Your task to perform on an android device: Is it going to rain this weekend? Image 0: 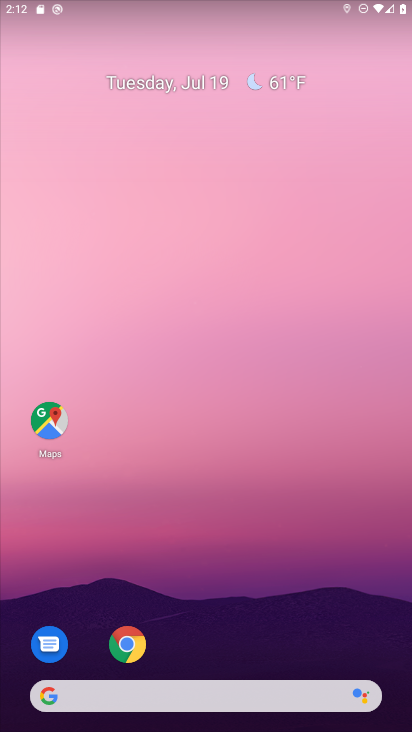
Step 0: drag from (214, 672) to (141, 148)
Your task to perform on an android device: Is it going to rain this weekend? Image 1: 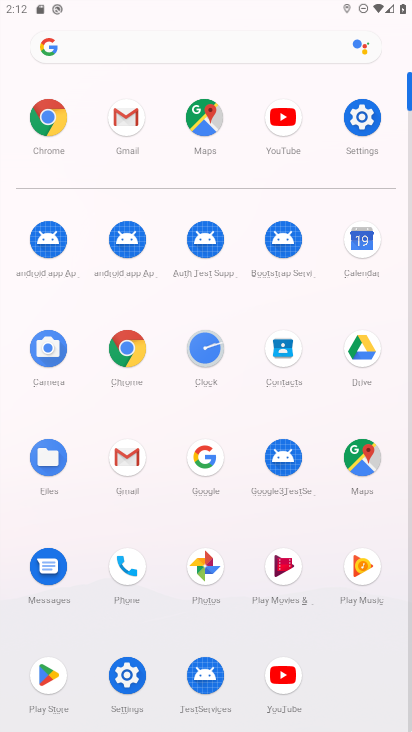
Step 1: click (213, 457)
Your task to perform on an android device: Is it going to rain this weekend? Image 2: 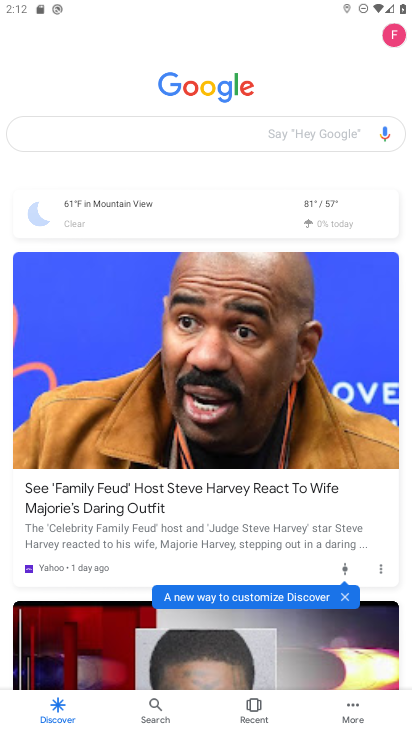
Step 2: click (198, 139)
Your task to perform on an android device: Is it going to rain this weekend? Image 3: 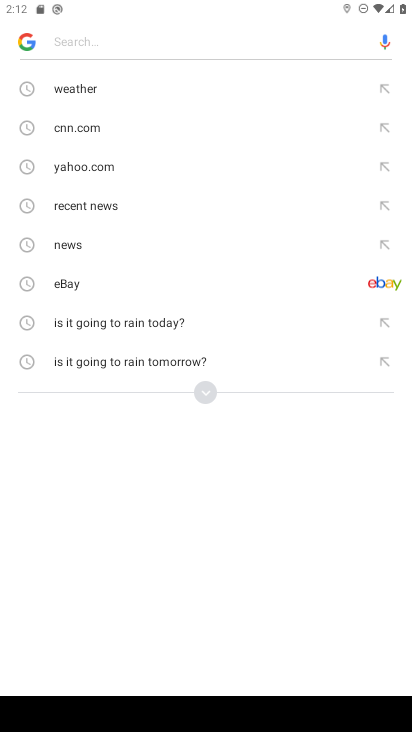
Step 3: click (77, 91)
Your task to perform on an android device: Is it going to rain this weekend? Image 4: 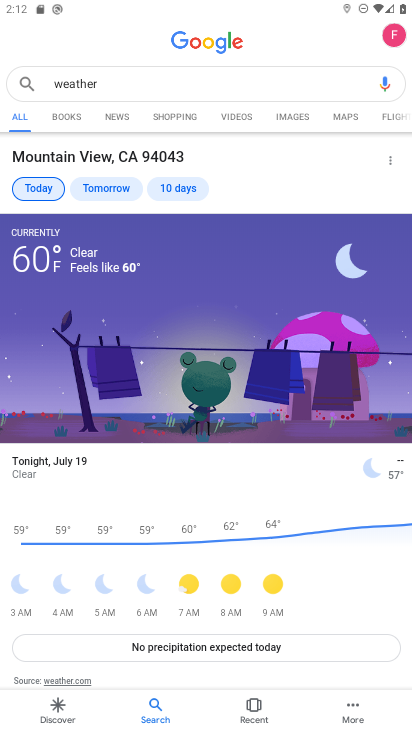
Step 4: click (192, 196)
Your task to perform on an android device: Is it going to rain this weekend? Image 5: 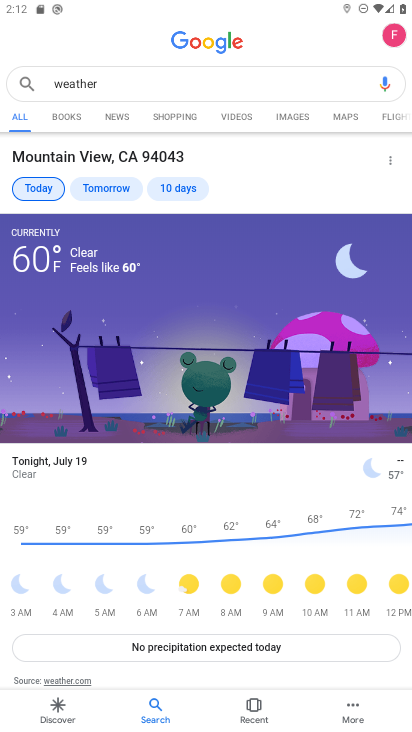
Step 5: click (188, 194)
Your task to perform on an android device: Is it going to rain this weekend? Image 6: 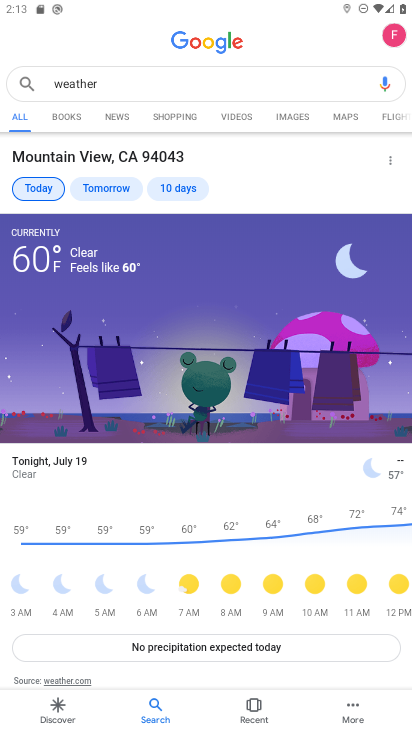
Step 6: click (179, 182)
Your task to perform on an android device: Is it going to rain this weekend? Image 7: 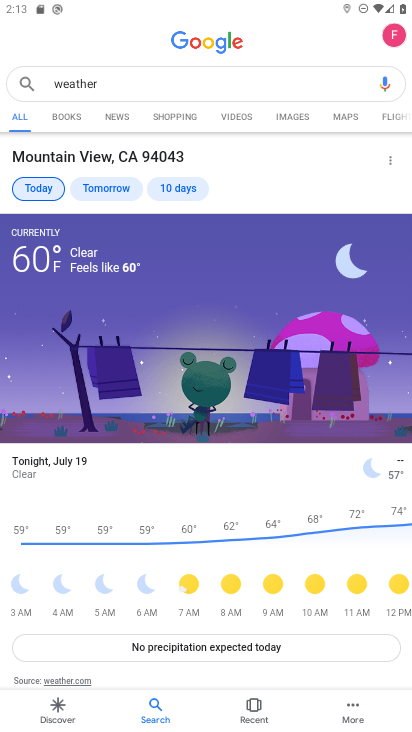
Step 7: click (179, 182)
Your task to perform on an android device: Is it going to rain this weekend? Image 8: 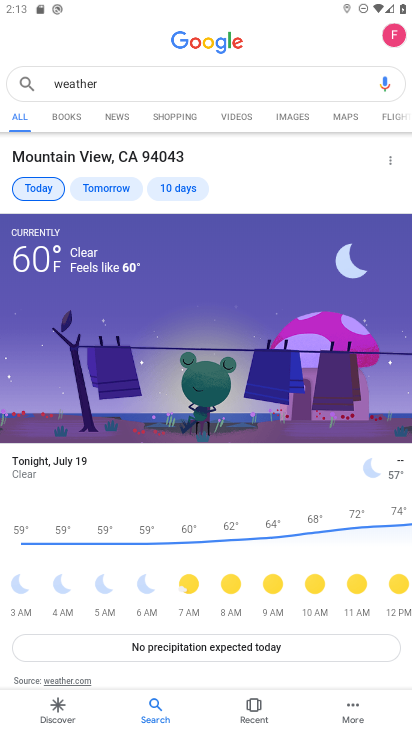
Step 8: click (194, 190)
Your task to perform on an android device: Is it going to rain this weekend? Image 9: 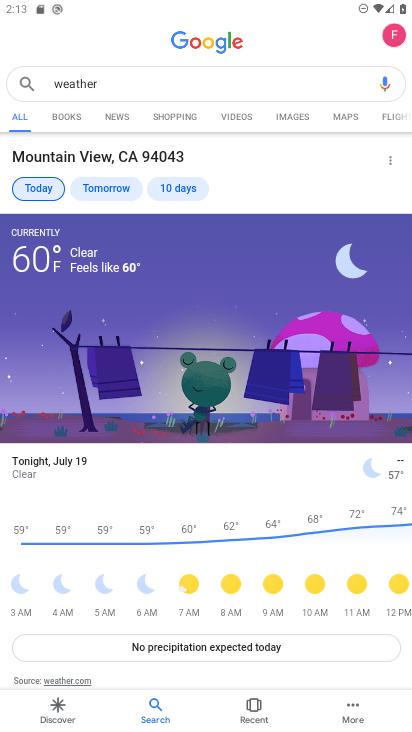
Step 9: click (194, 190)
Your task to perform on an android device: Is it going to rain this weekend? Image 10: 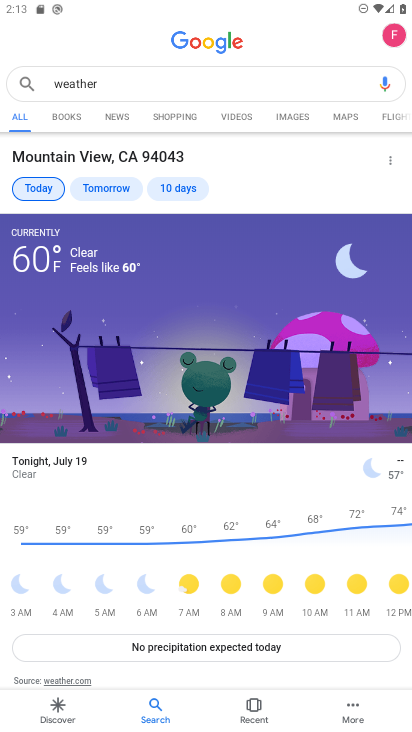
Step 10: click (193, 190)
Your task to perform on an android device: Is it going to rain this weekend? Image 11: 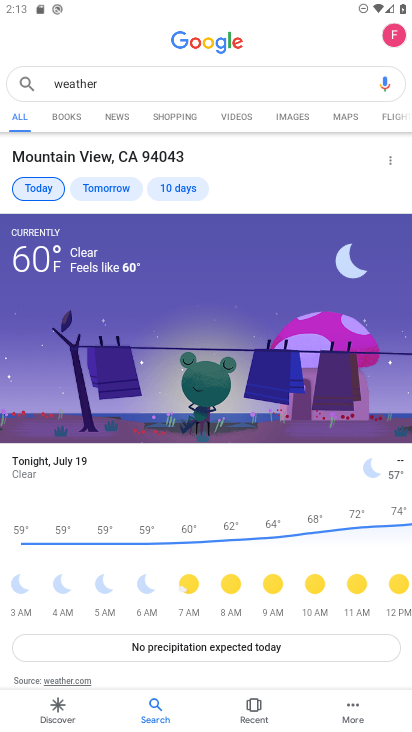
Step 11: task complete